Your task to perform on an android device: change the clock style Image 0: 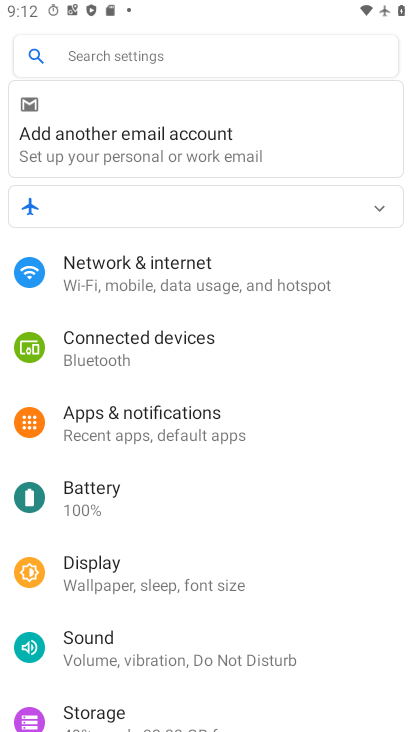
Step 0: press home button
Your task to perform on an android device: change the clock style Image 1: 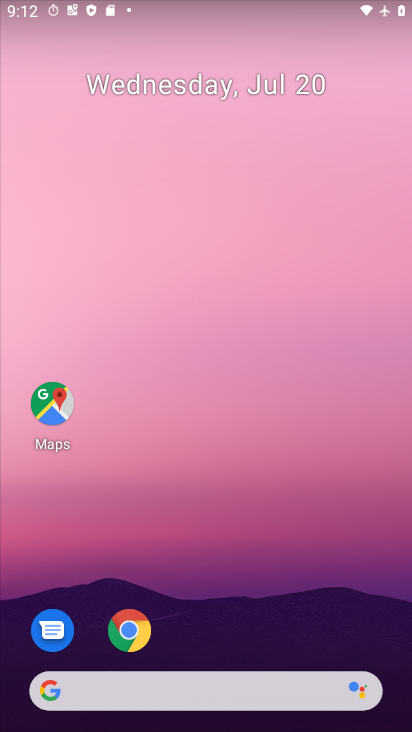
Step 1: drag from (203, 685) to (221, 300)
Your task to perform on an android device: change the clock style Image 2: 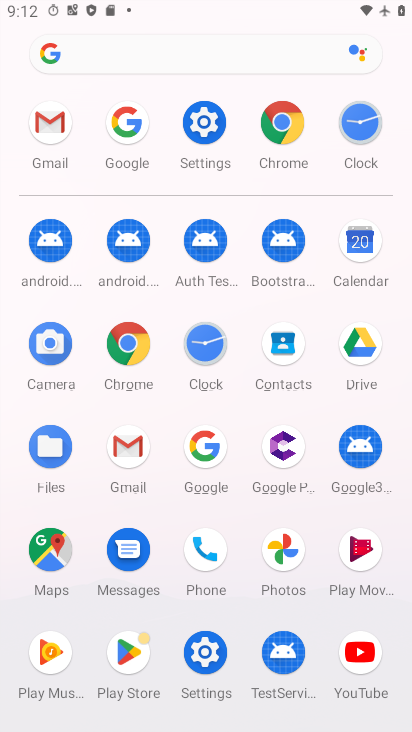
Step 2: click (225, 359)
Your task to perform on an android device: change the clock style Image 3: 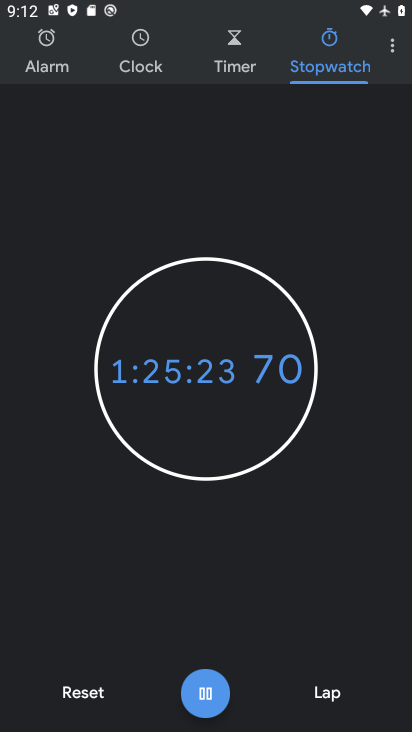
Step 3: click (396, 50)
Your task to perform on an android device: change the clock style Image 4: 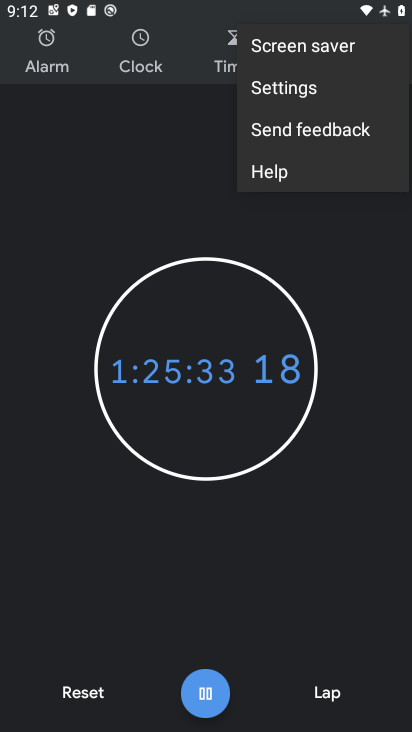
Step 4: click (294, 91)
Your task to perform on an android device: change the clock style Image 5: 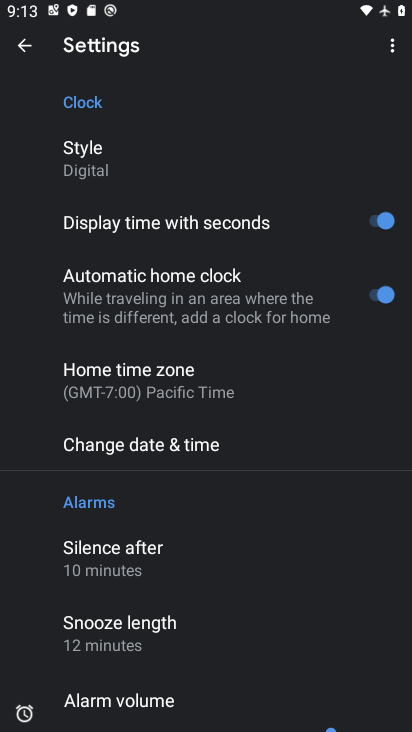
Step 5: click (169, 154)
Your task to perform on an android device: change the clock style Image 6: 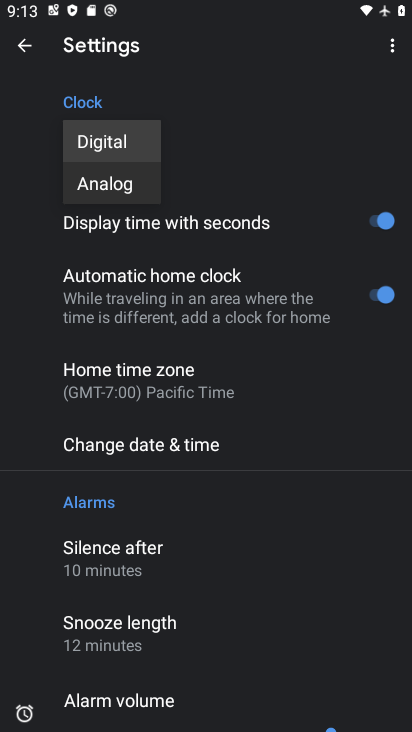
Step 6: click (110, 186)
Your task to perform on an android device: change the clock style Image 7: 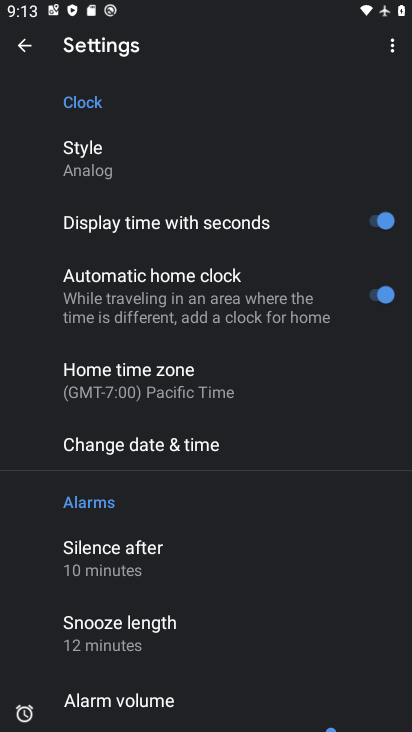
Step 7: task complete